Your task to perform on an android device: Open accessibility settings Image 0: 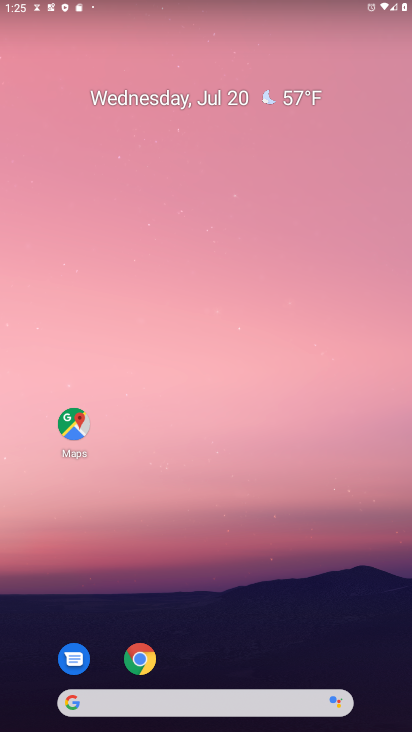
Step 0: drag from (221, 670) to (193, 8)
Your task to perform on an android device: Open accessibility settings Image 1: 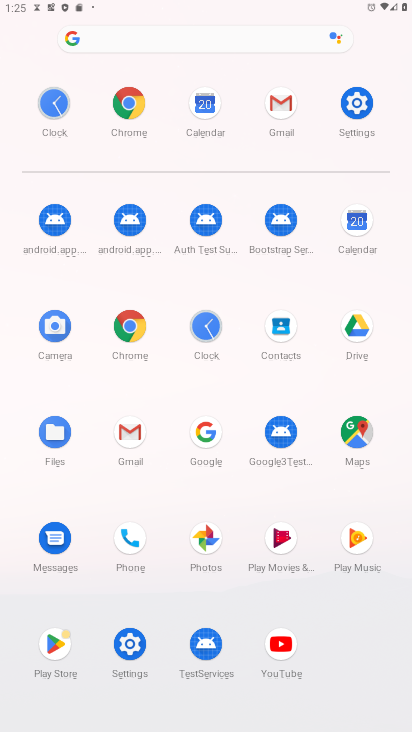
Step 1: click (358, 98)
Your task to perform on an android device: Open accessibility settings Image 2: 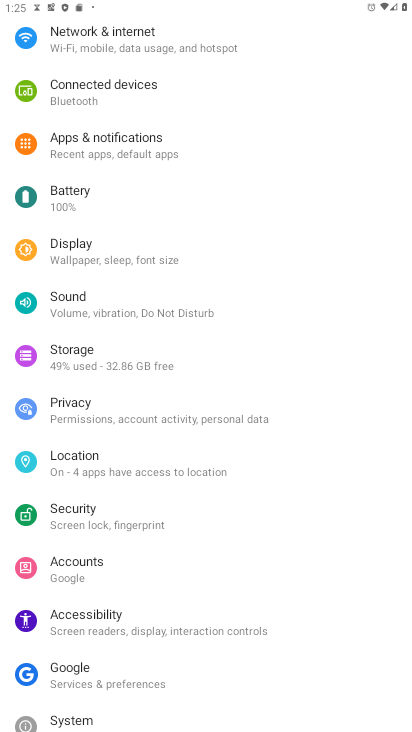
Step 2: click (138, 611)
Your task to perform on an android device: Open accessibility settings Image 3: 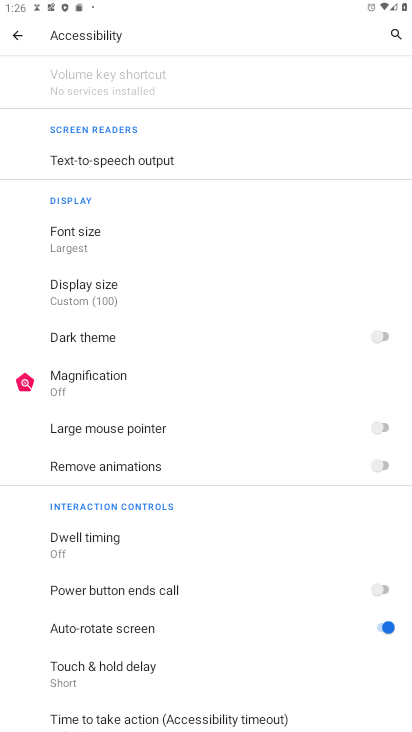
Step 3: task complete